Your task to perform on an android device: Open internet settings Image 0: 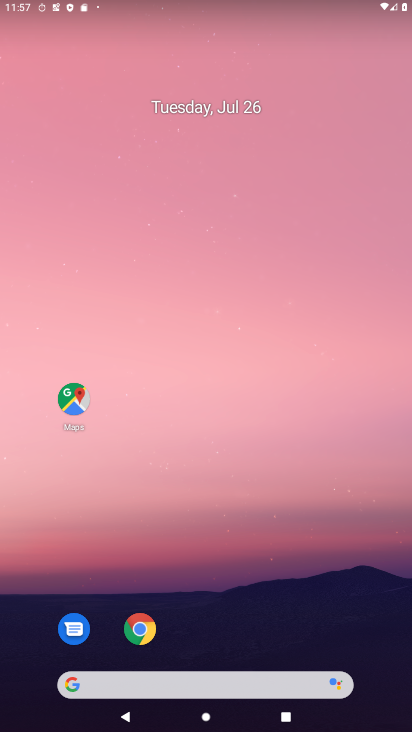
Step 0: drag from (338, 617) to (227, 54)
Your task to perform on an android device: Open internet settings Image 1: 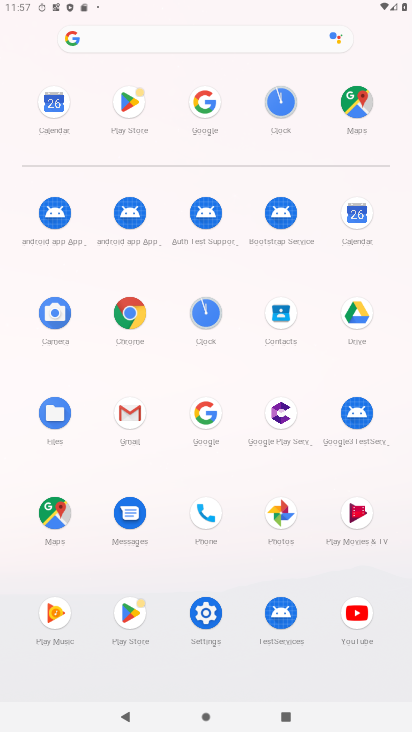
Step 1: click (208, 614)
Your task to perform on an android device: Open internet settings Image 2: 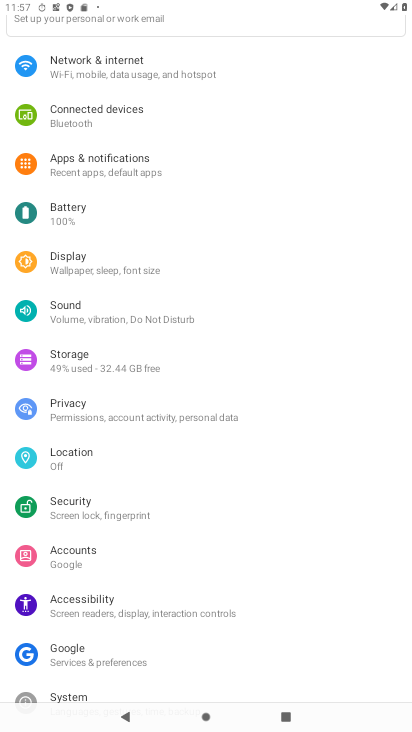
Step 2: click (159, 67)
Your task to perform on an android device: Open internet settings Image 3: 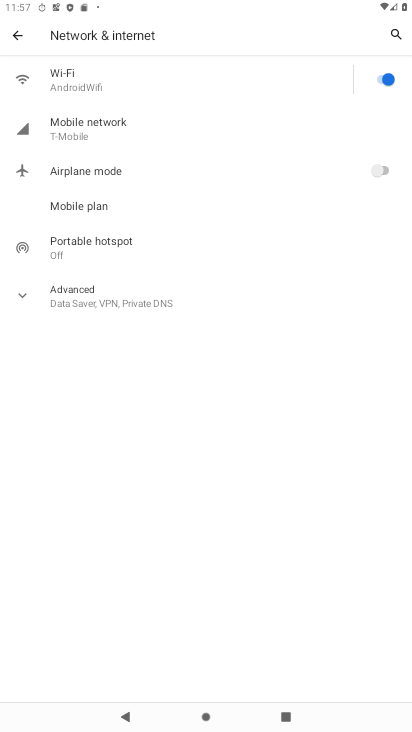
Step 3: task complete